Your task to perform on an android device: set the timer Image 0: 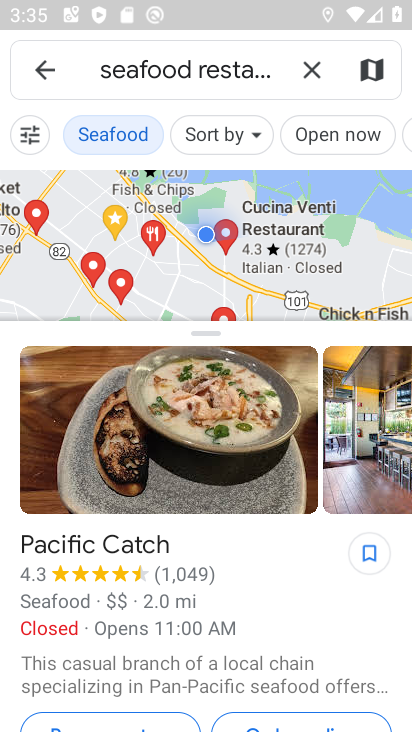
Step 0: task complete